Your task to perform on an android device: What's the weather going to be tomorrow? Image 0: 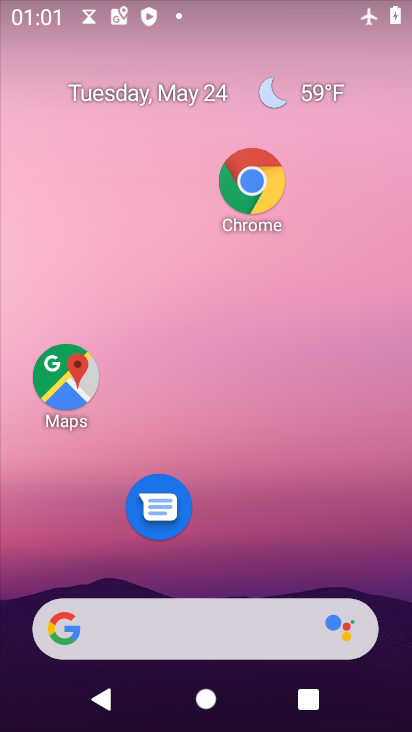
Step 0: drag from (307, 693) to (334, 179)
Your task to perform on an android device: What's the weather going to be tomorrow? Image 1: 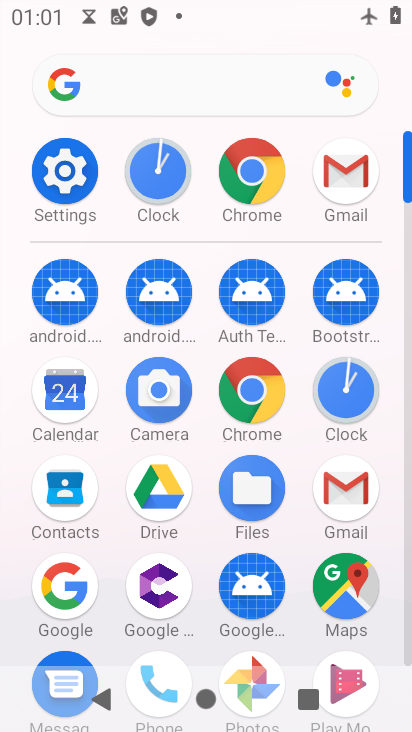
Step 1: click (62, 390)
Your task to perform on an android device: What's the weather going to be tomorrow? Image 2: 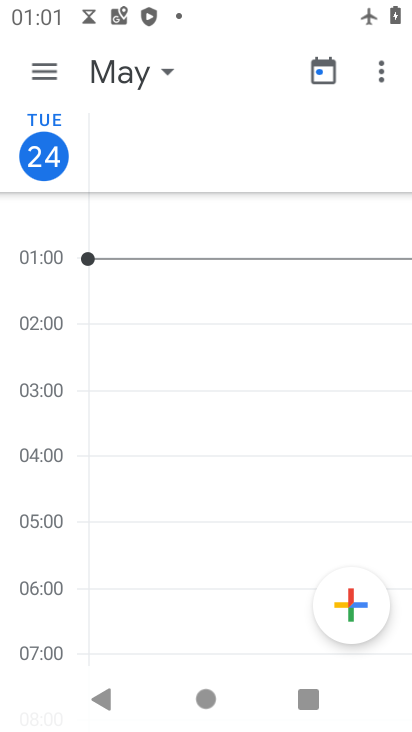
Step 2: drag from (105, 532) to (199, 161)
Your task to perform on an android device: What's the weather going to be tomorrow? Image 3: 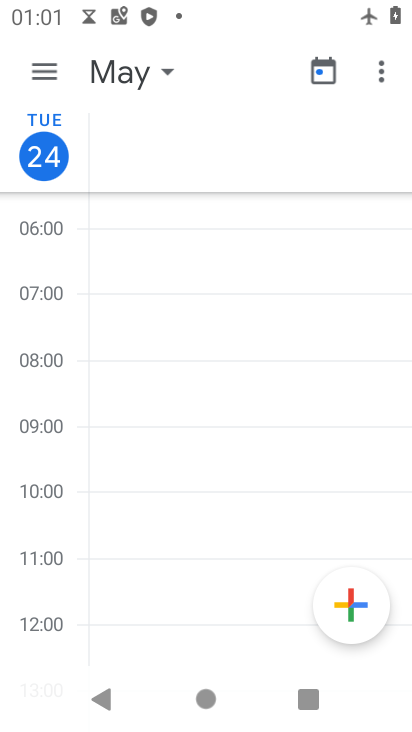
Step 3: click (46, 65)
Your task to perform on an android device: What's the weather going to be tomorrow? Image 4: 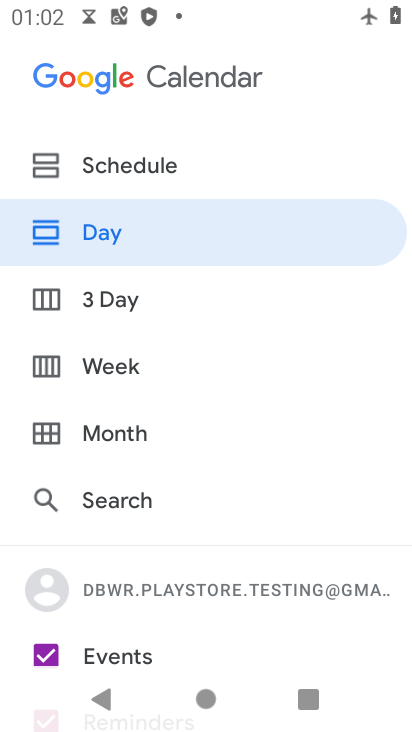
Step 4: click (153, 420)
Your task to perform on an android device: What's the weather going to be tomorrow? Image 5: 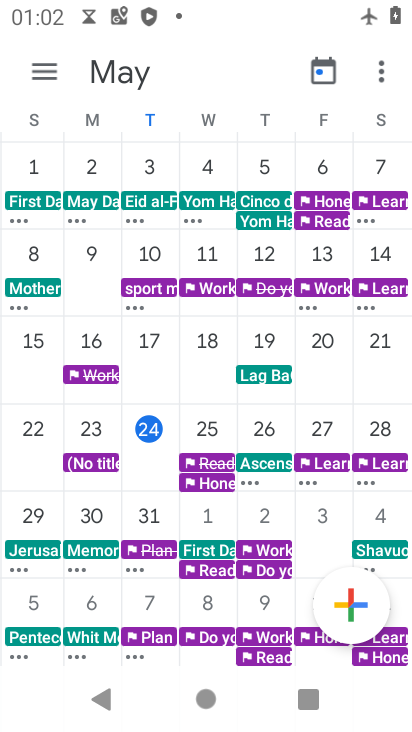
Step 5: click (226, 419)
Your task to perform on an android device: What's the weather going to be tomorrow? Image 6: 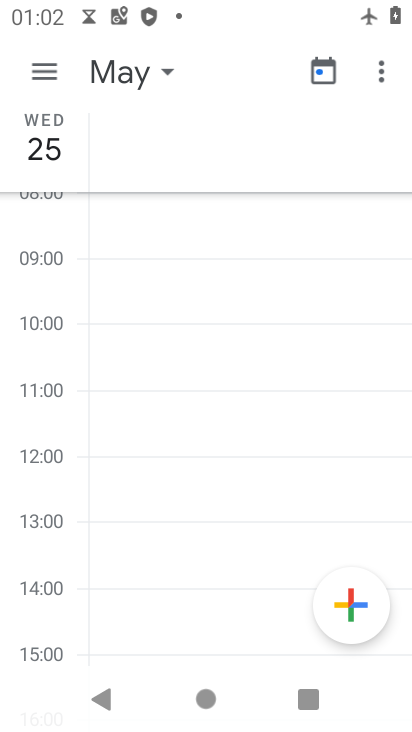
Step 6: task complete